Your task to perform on an android device: Add logitech g903 to the cart on bestbuy.com Image 0: 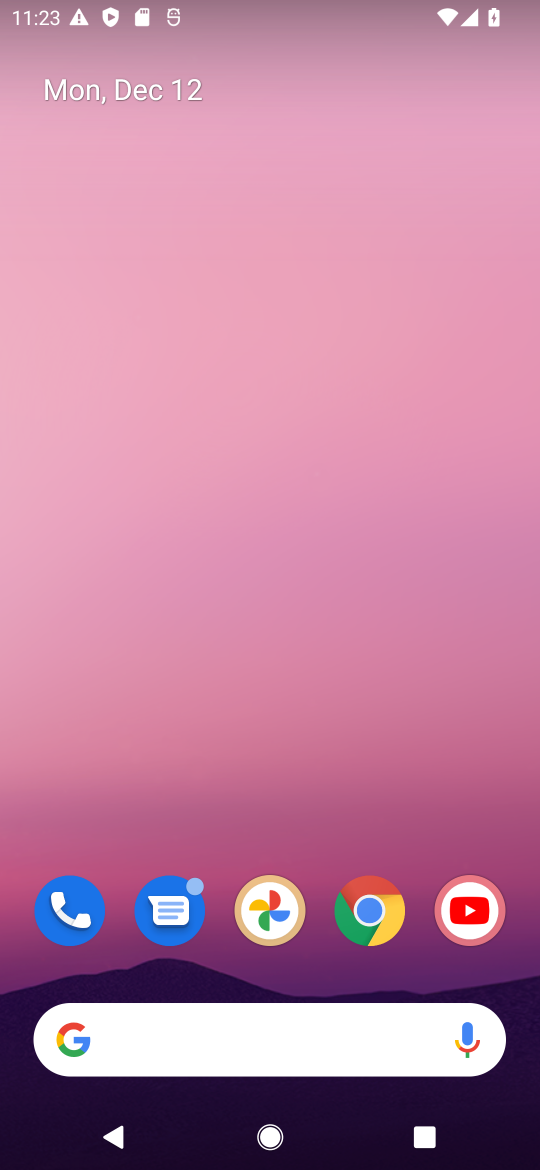
Step 0: click (393, 897)
Your task to perform on an android device: Add logitech g903 to the cart on bestbuy.com Image 1: 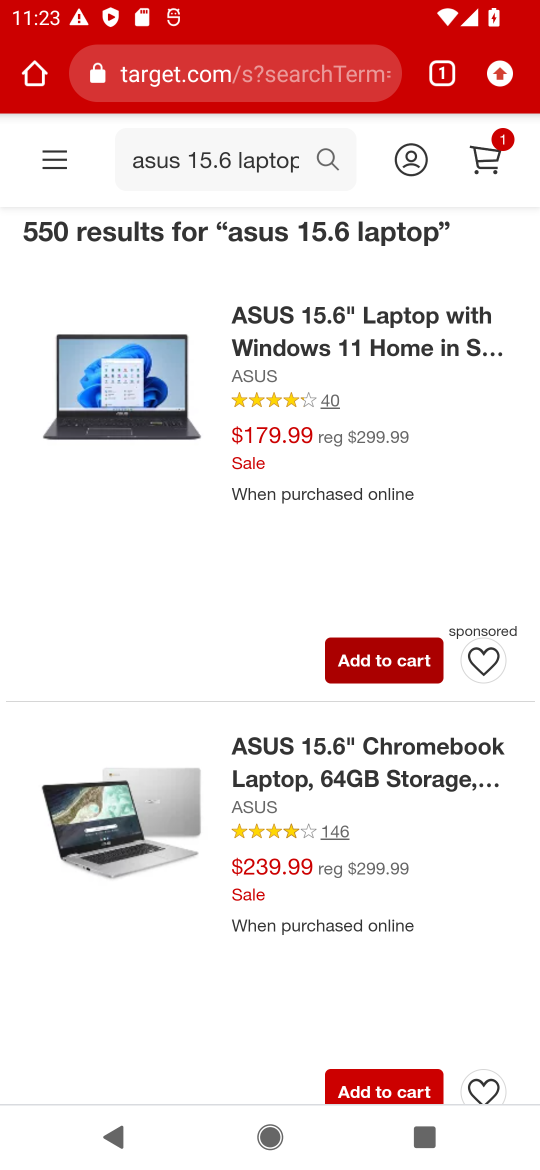
Step 1: click (259, 77)
Your task to perform on an android device: Add logitech g903 to the cart on bestbuy.com Image 2: 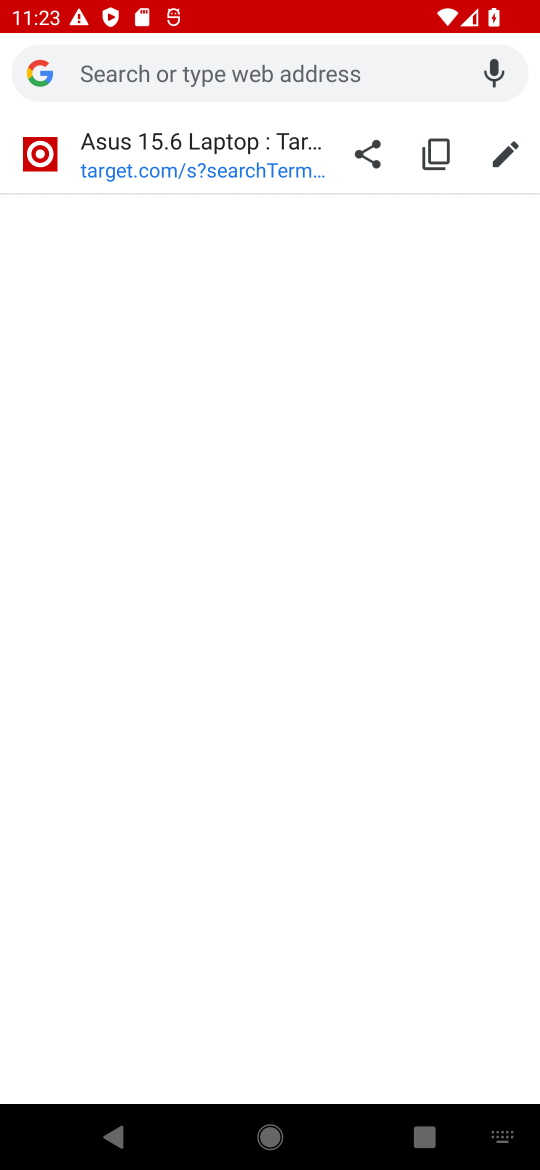
Step 2: type "bestbuy"
Your task to perform on an android device: Add logitech g903 to the cart on bestbuy.com Image 3: 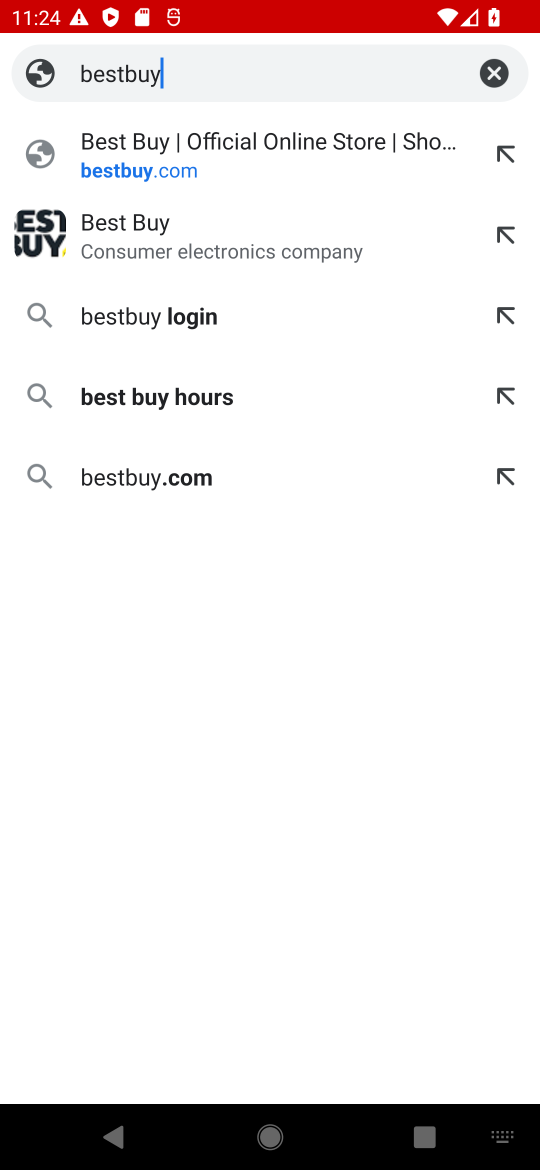
Step 3: click (218, 149)
Your task to perform on an android device: Add logitech g903 to the cart on bestbuy.com Image 4: 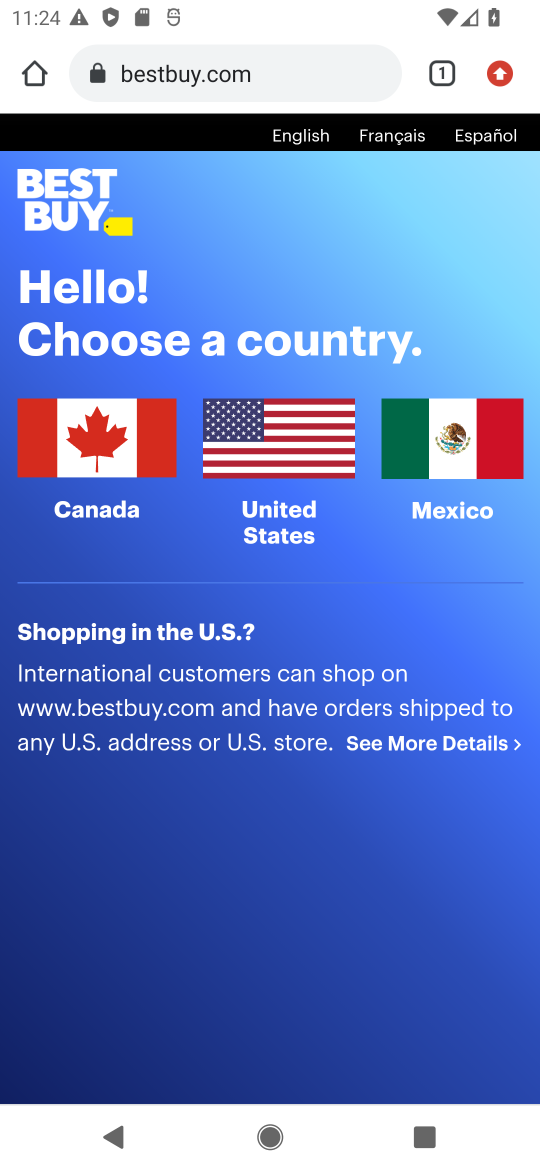
Step 4: click (249, 482)
Your task to perform on an android device: Add logitech g903 to the cart on bestbuy.com Image 5: 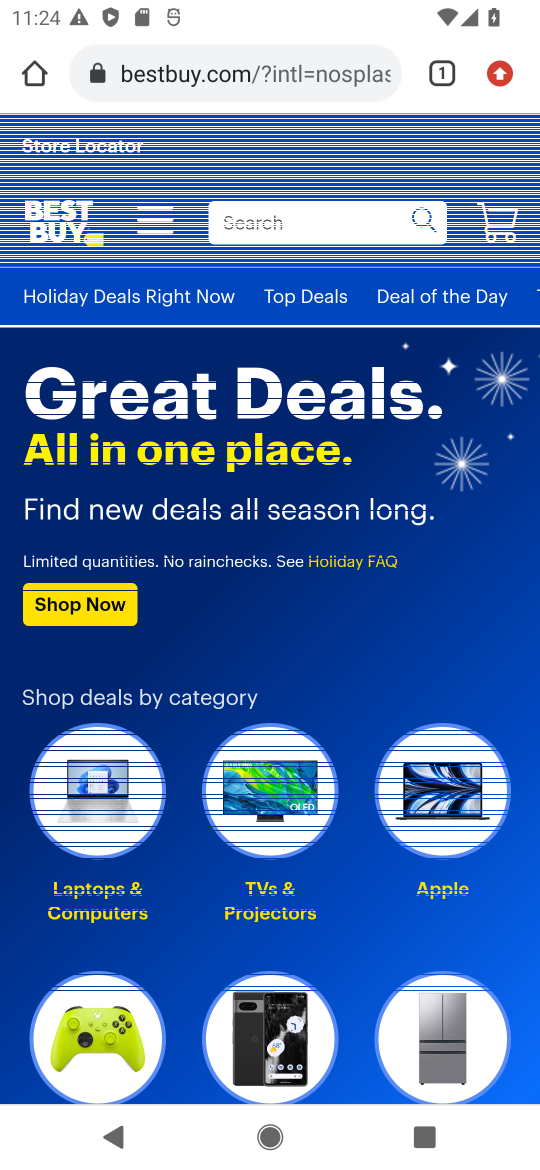
Step 5: click (282, 223)
Your task to perform on an android device: Add logitech g903 to the cart on bestbuy.com Image 6: 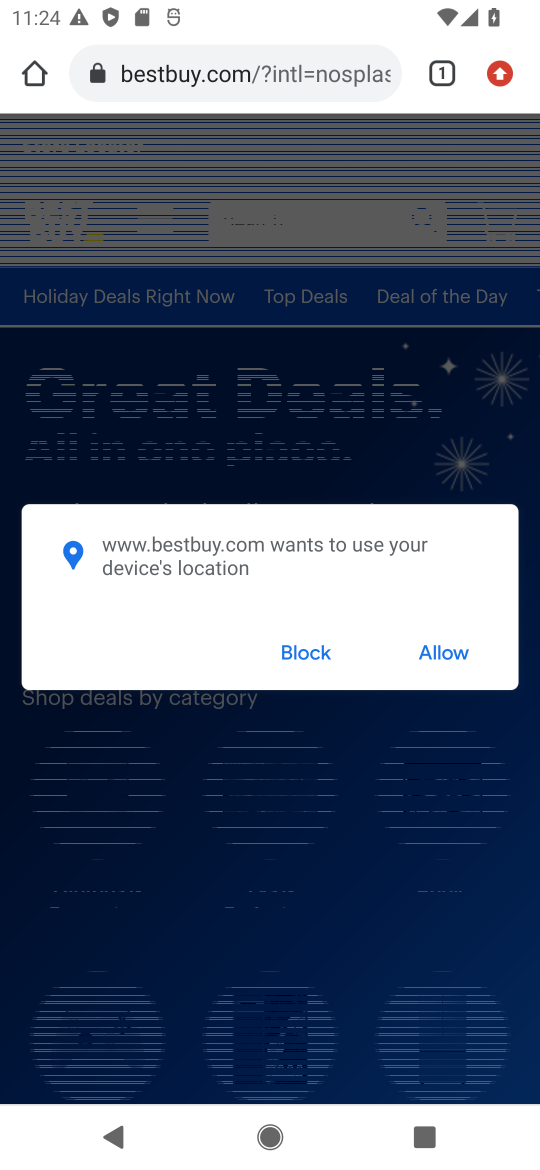
Step 6: click (294, 651)
Your task to perform on an android device: Add logitech g903 to the cart on bestbuy.com Image 7: 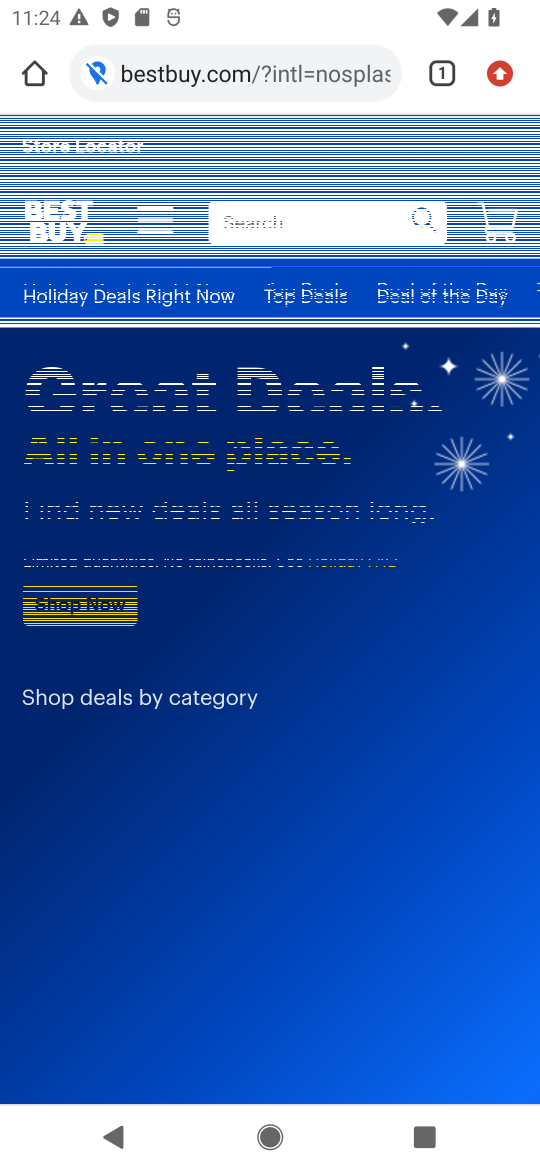
Step 7: click (293, 221)
Your task to perform on an android device: Add logitech g903 to the cart on bestbuy.com Image 8: 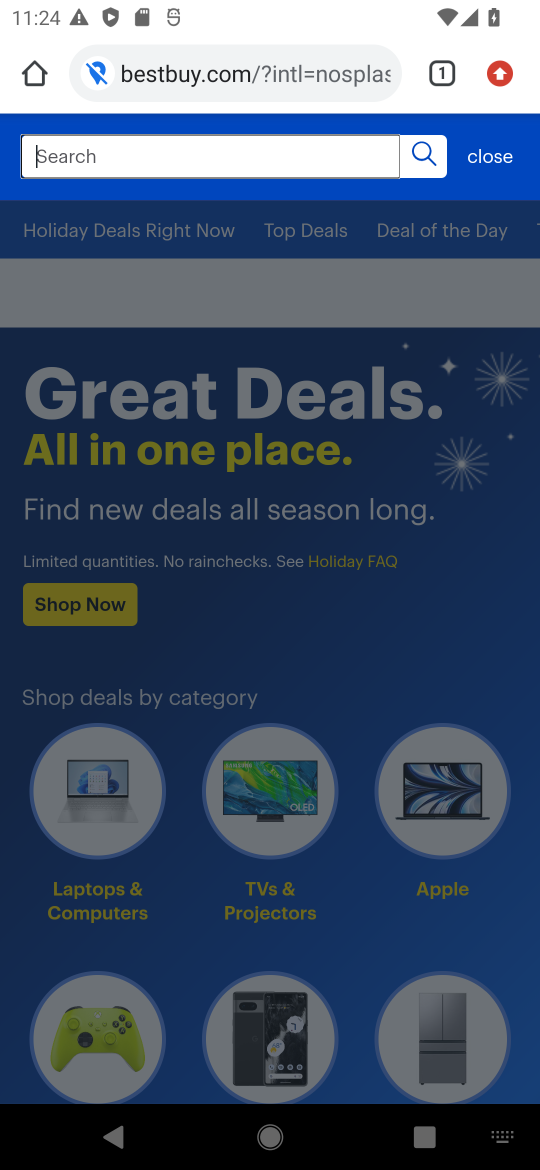
Step 8: type "logitech g903"
Your task to perform on an android device: Add logitech g903 to the cart on bestbuy.com Image 9: 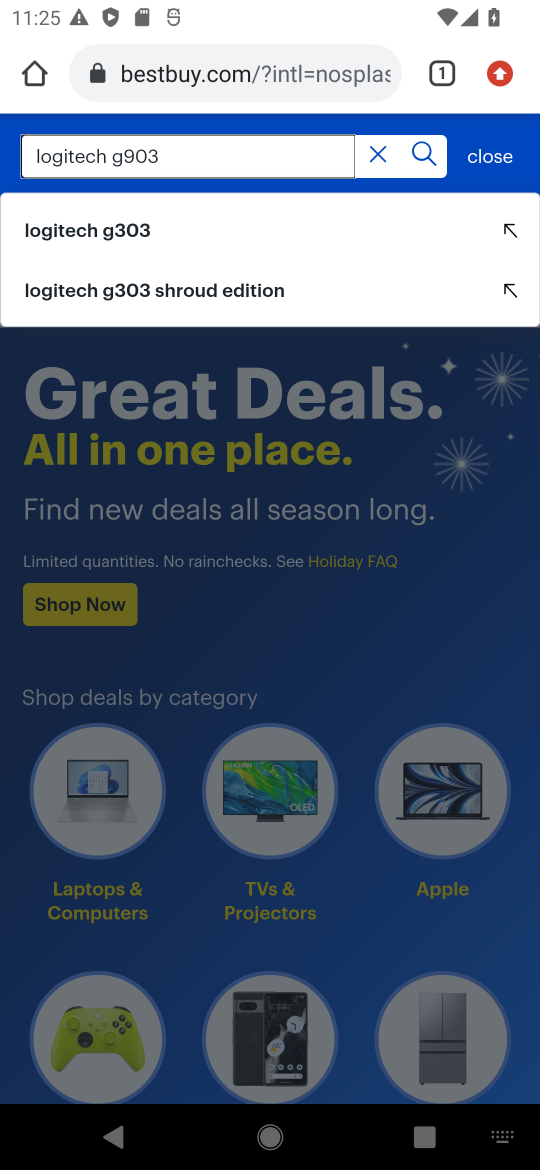
Step 9: click (90, 228)
Your task to perform on an android device: Add logitech g903 to the cart on bestbuy.com Image 10: 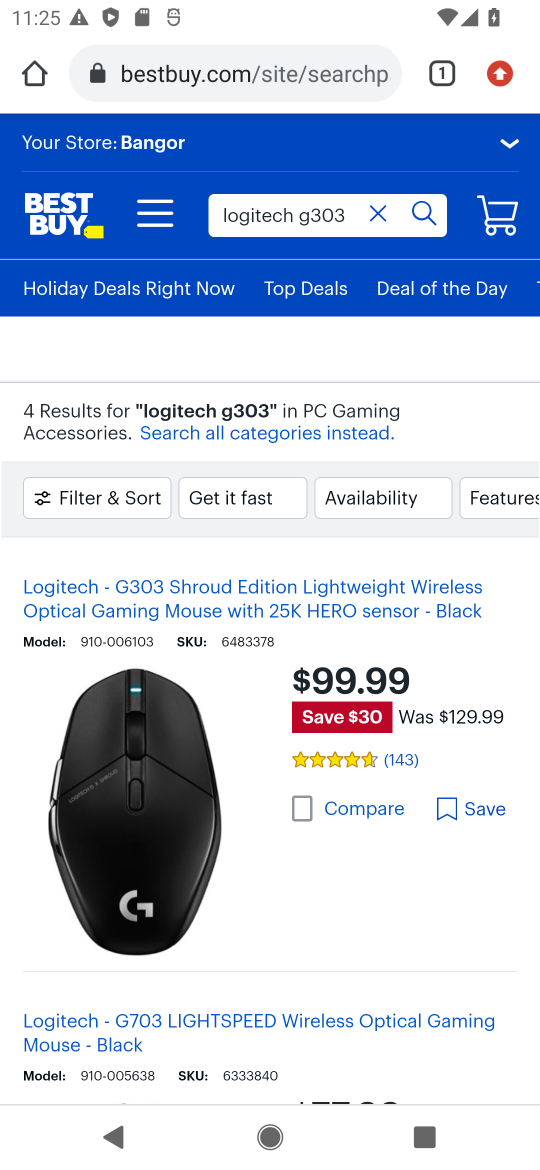
Step 10: drag from (358, 866) to (294, 459)
Your task to perform on an android device: Add logitech g903 to the cart on bestbuy.com Image 11: 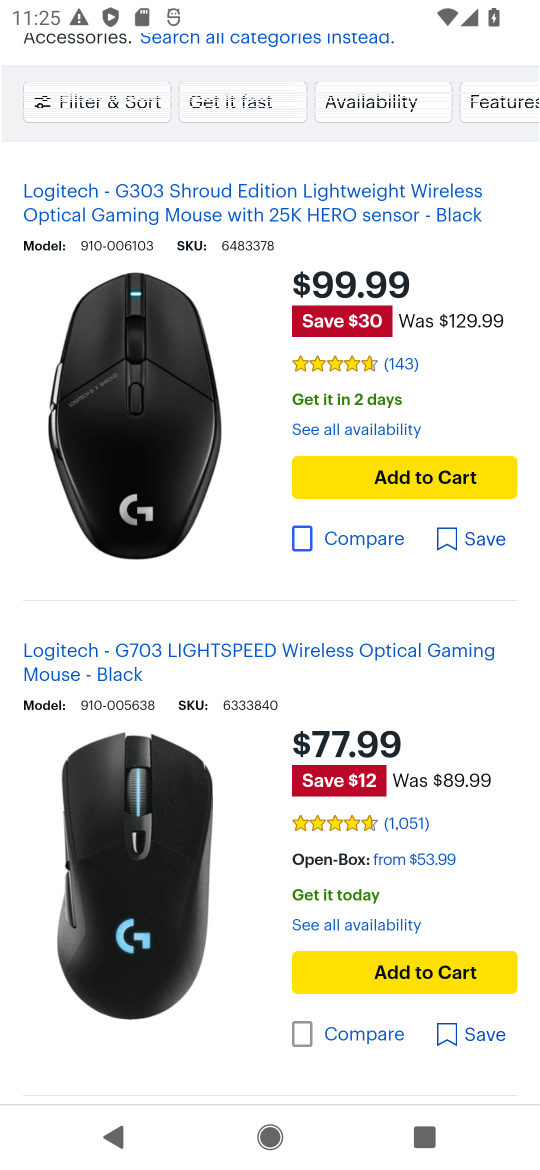
Step 11: click (205, 436)
Your task to perform on an android device: Add logitech g903 to the cart on bestbuy.com Image 12: 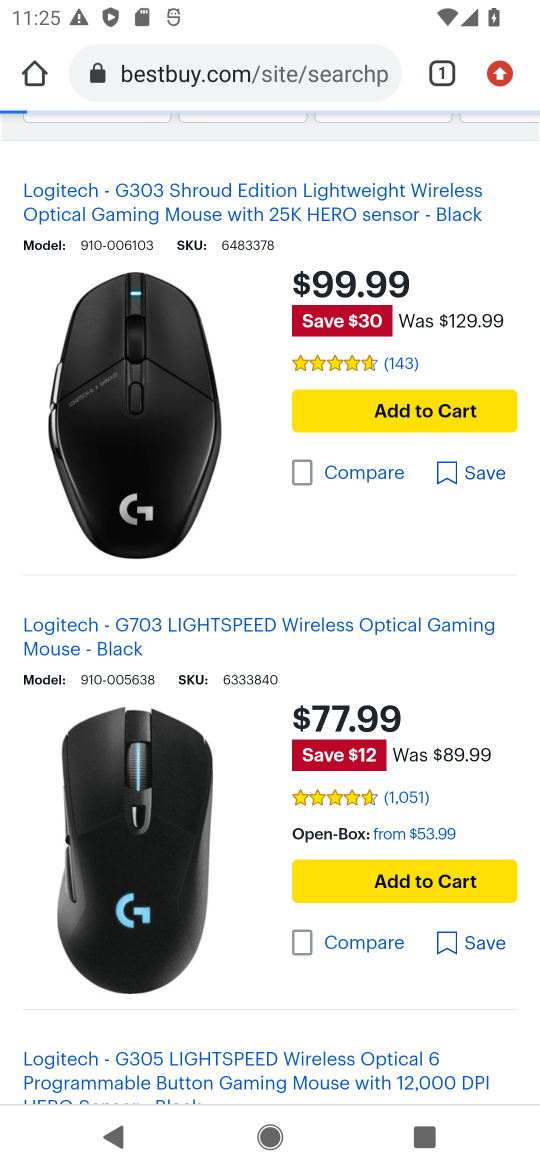
Step 12: click (383, 476)
Your task to perform on an android device: Add logitech g903 to the cart on bestbuy.com Image 13: 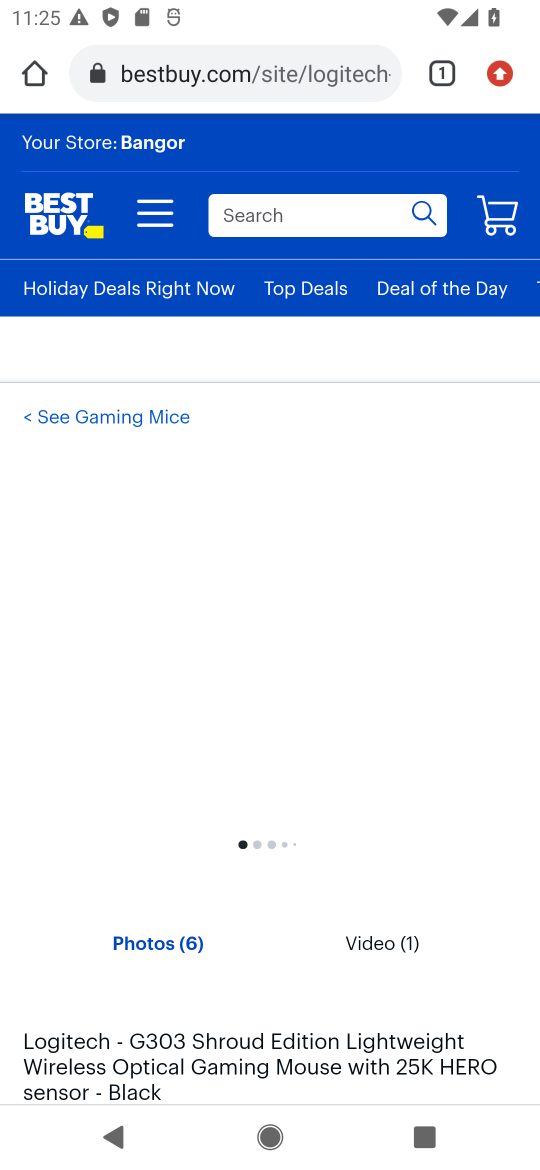
Step 13: drag from (335, 1028) to (266, 337)
Your task to perform on an android device: Add logitech g903 to the cart on bestbuy.com Image 14: 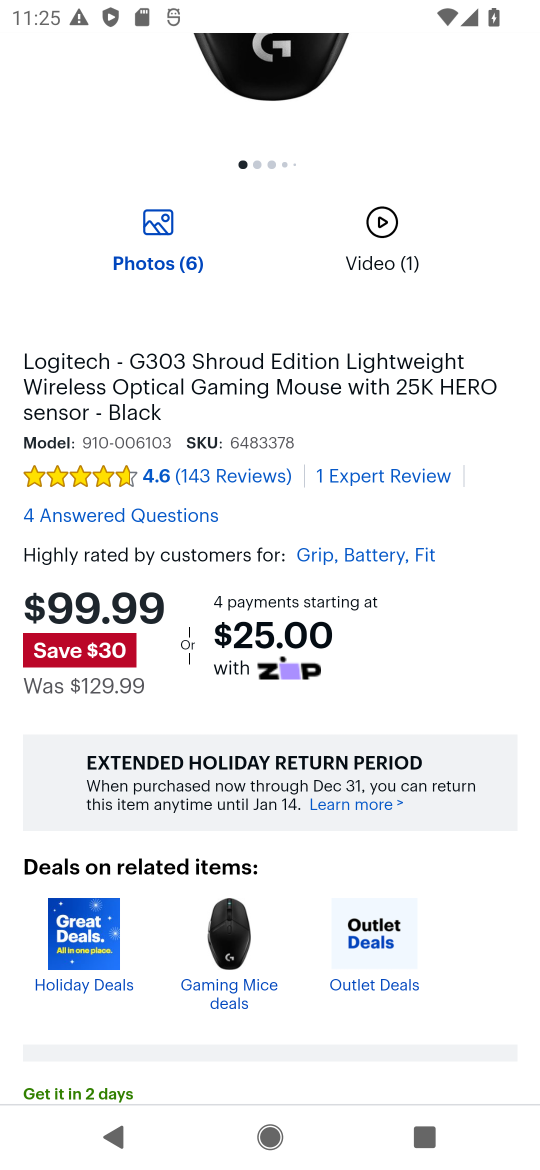
Step 14: drag from (347, 930) to (317, 342)
Your task to perform on an android device: Add logitech g903 to the cart on bestbuy.com Image 15: 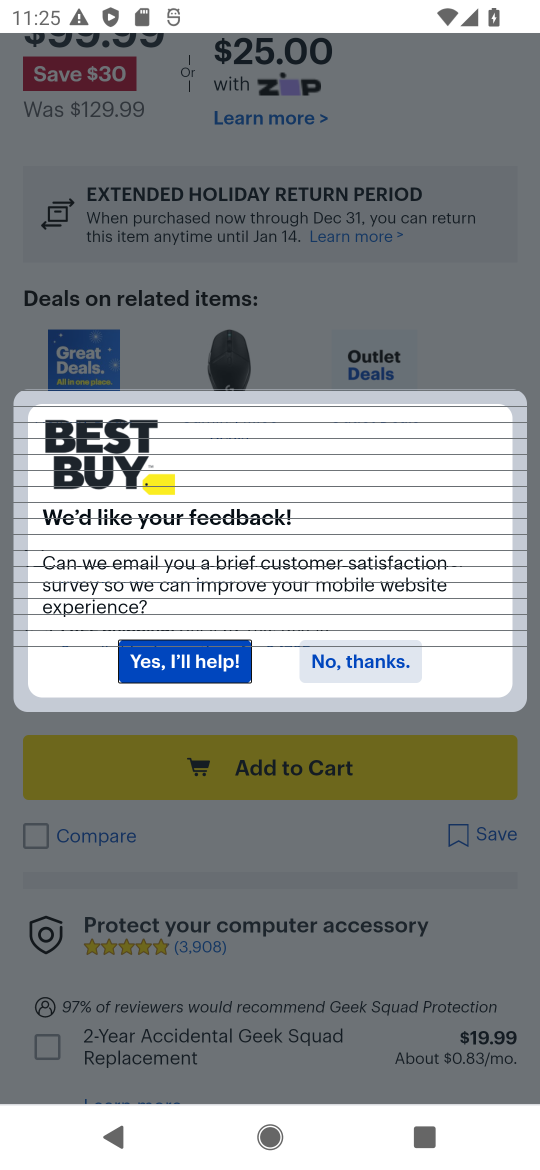
Step 15: click (186, 667)
Your task to perform on an android device: Add logitech g903 to the cart on bestbuy.com Image 16: 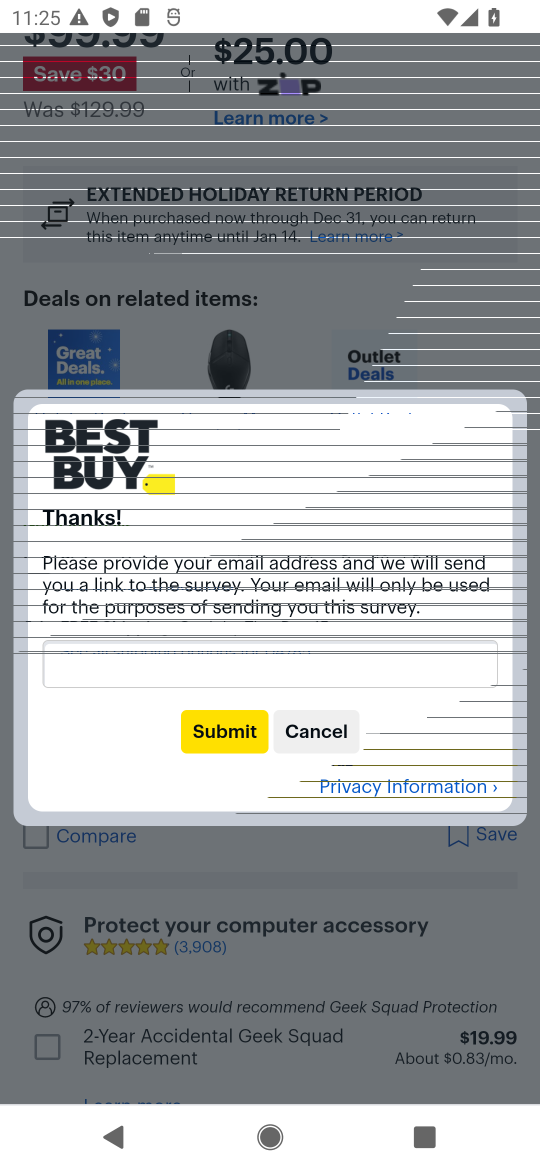
Step 16: click (312, 736)
Your task to perform on an android device: Add logitech g903 to the cart on bestbuy.com Image 17: 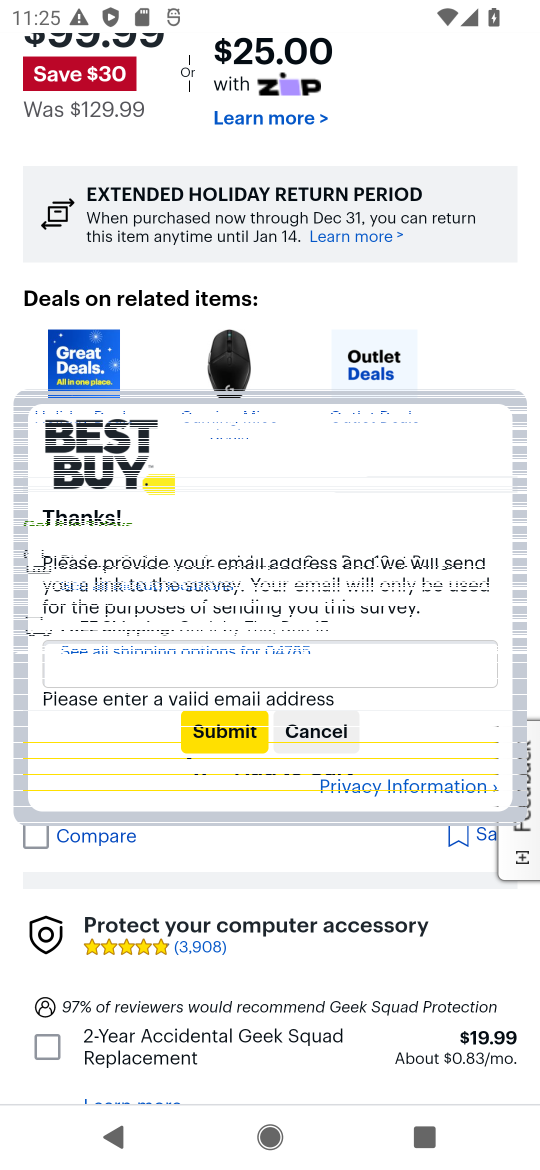
Step 17: click (312, 736)
Your task to perform on an android device: Add logitech g903 to the cart on bestbuy.com Image 18: 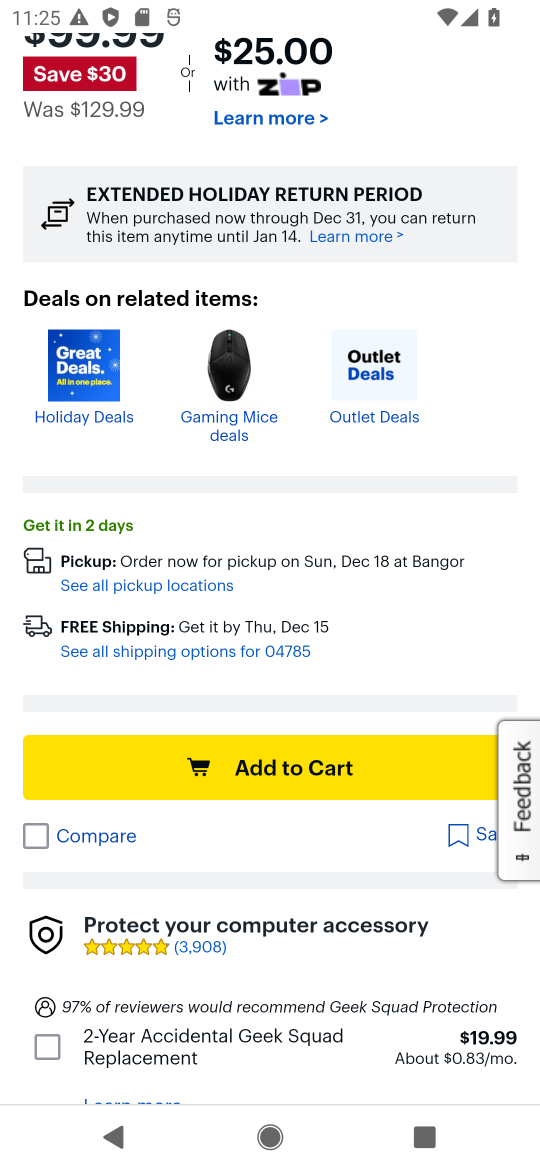
Step 18: click (290, 772)
Your task to perform on an android device: Add logitech g903 to the cart on bestbuy.com Image 19: 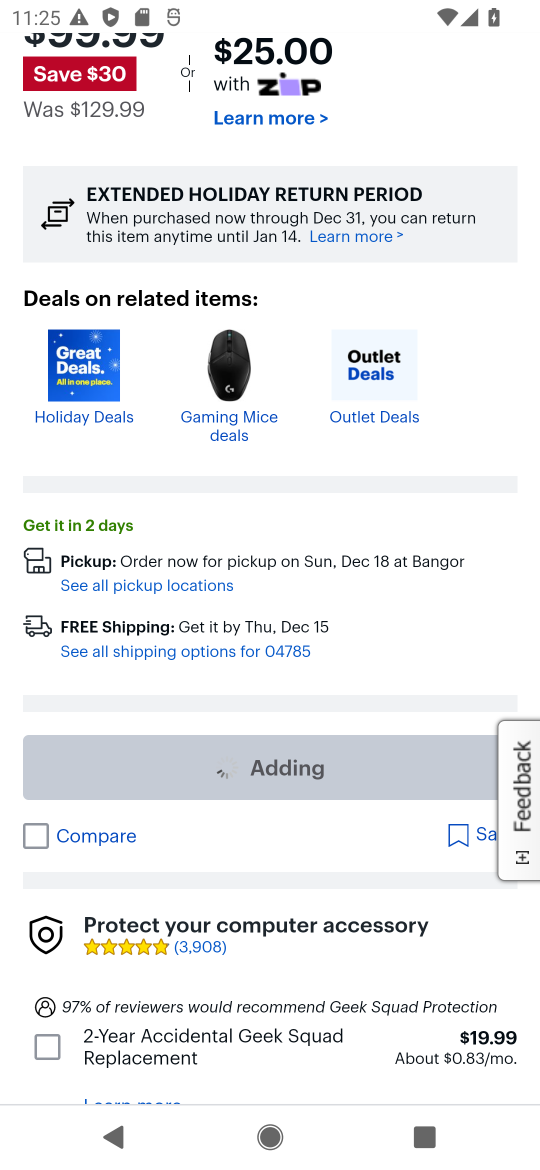
Step 19: task complete